Your task to perform on an android device: turn on the 12-hour format for clock Image 0: 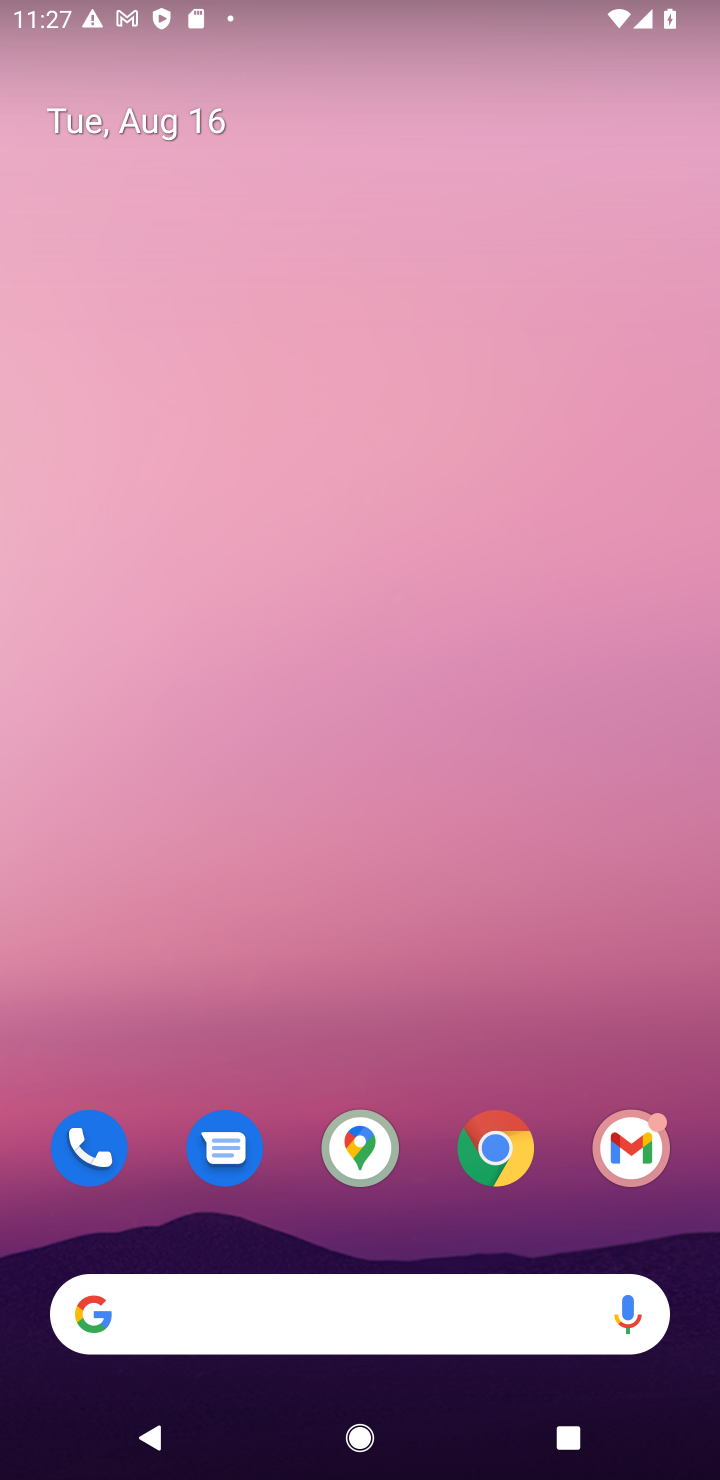
Step 0: drag from (436, 1077) to (73, 153)
Your task to perform on an android device: turn on the 12-hour format for clock Image 1: 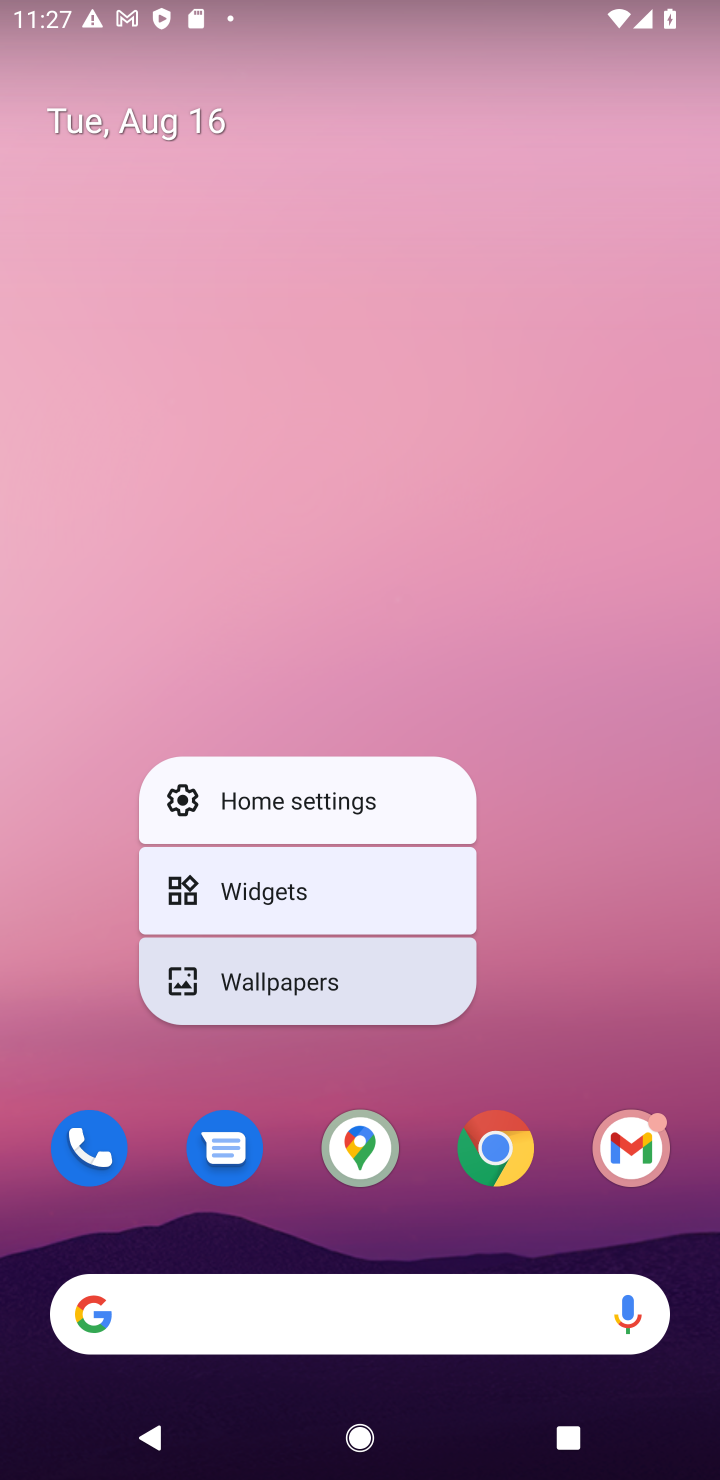
Step 1: click (134, 343)
Your task to perform on an android device: turn on the 12-hour format for clock Image 2: 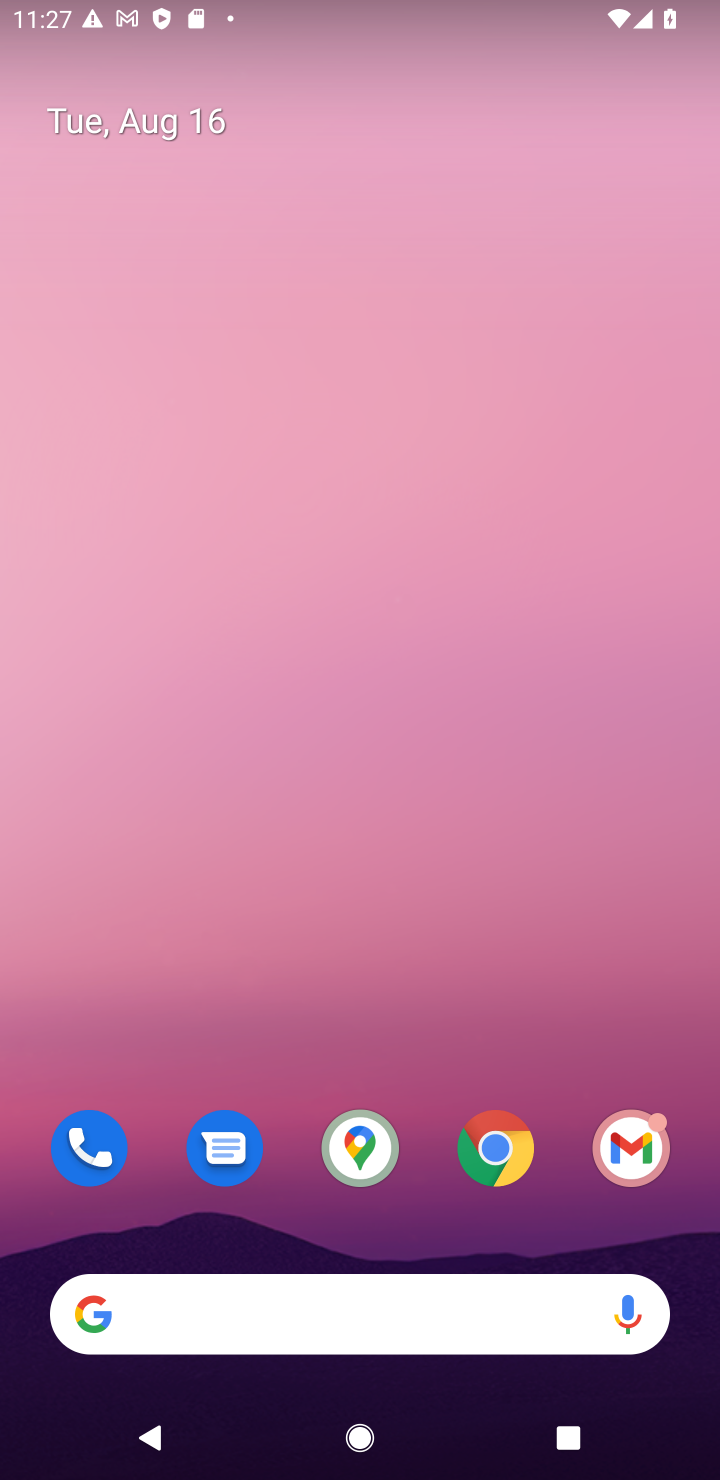
Step 2: drag from (362, 1244) to (0, 398)
Your task to perform on an android device: turn on the 12-hour format for clock Image 3: 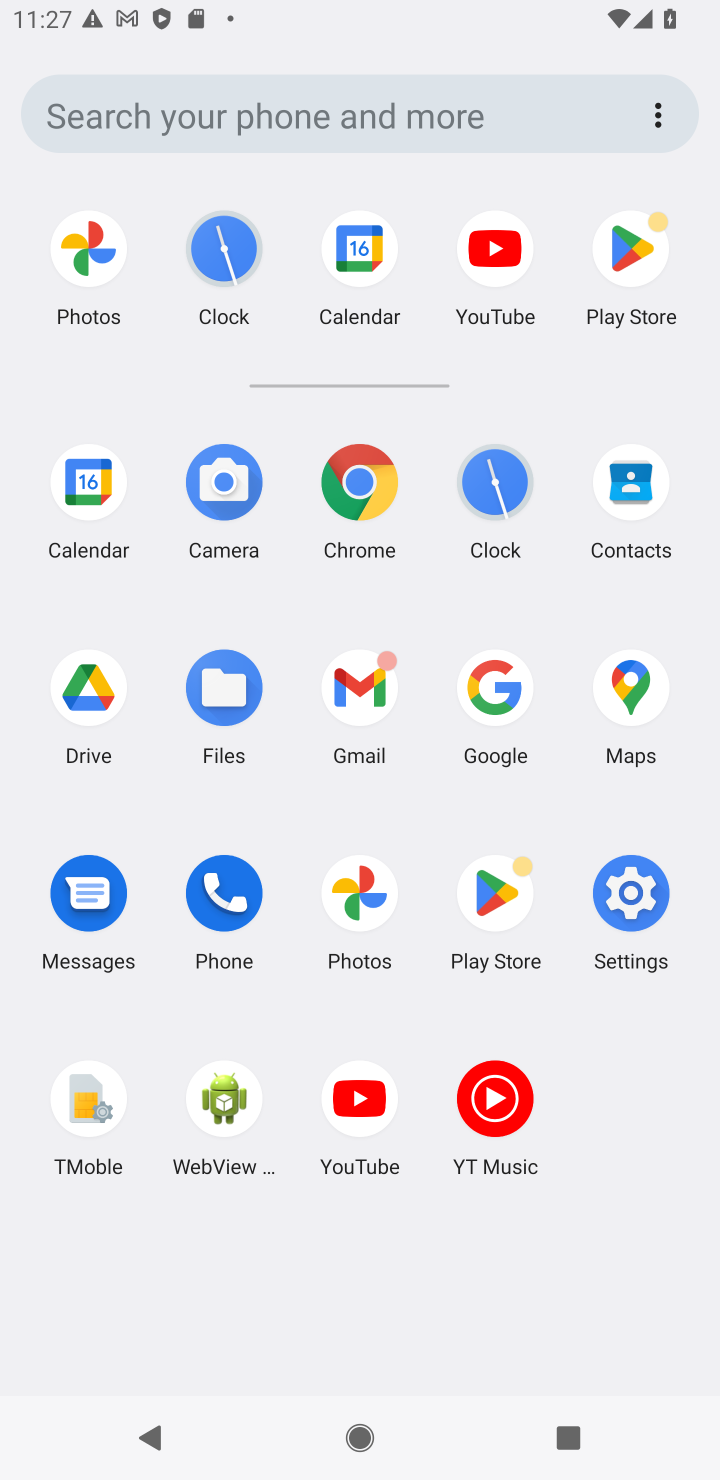
Step 3: click (490, 489)
Your task to perform on an android device: turn on the 12-hour format for clock Image 4: 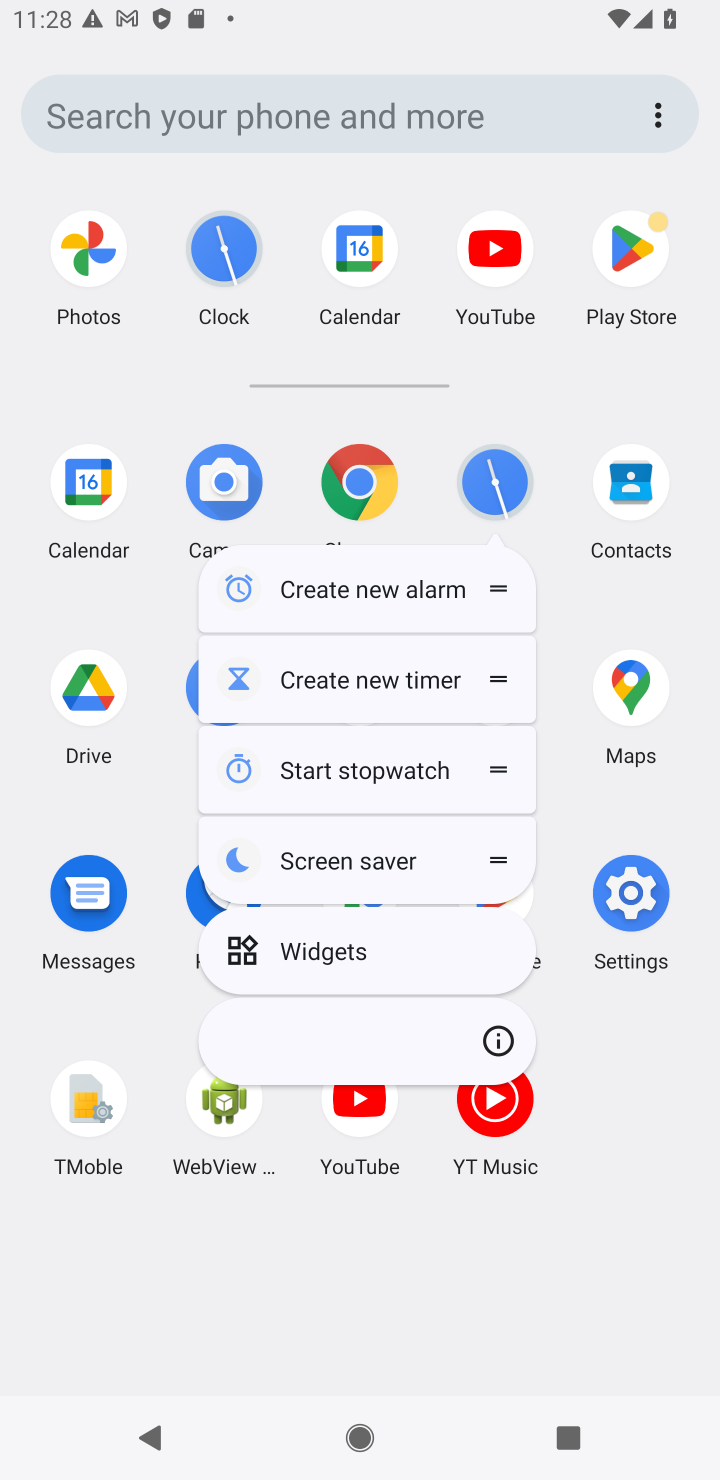
Step 4: click (478, 490)
Your task to perform on an android device: turn on the 12-hour format for clock Image 5: 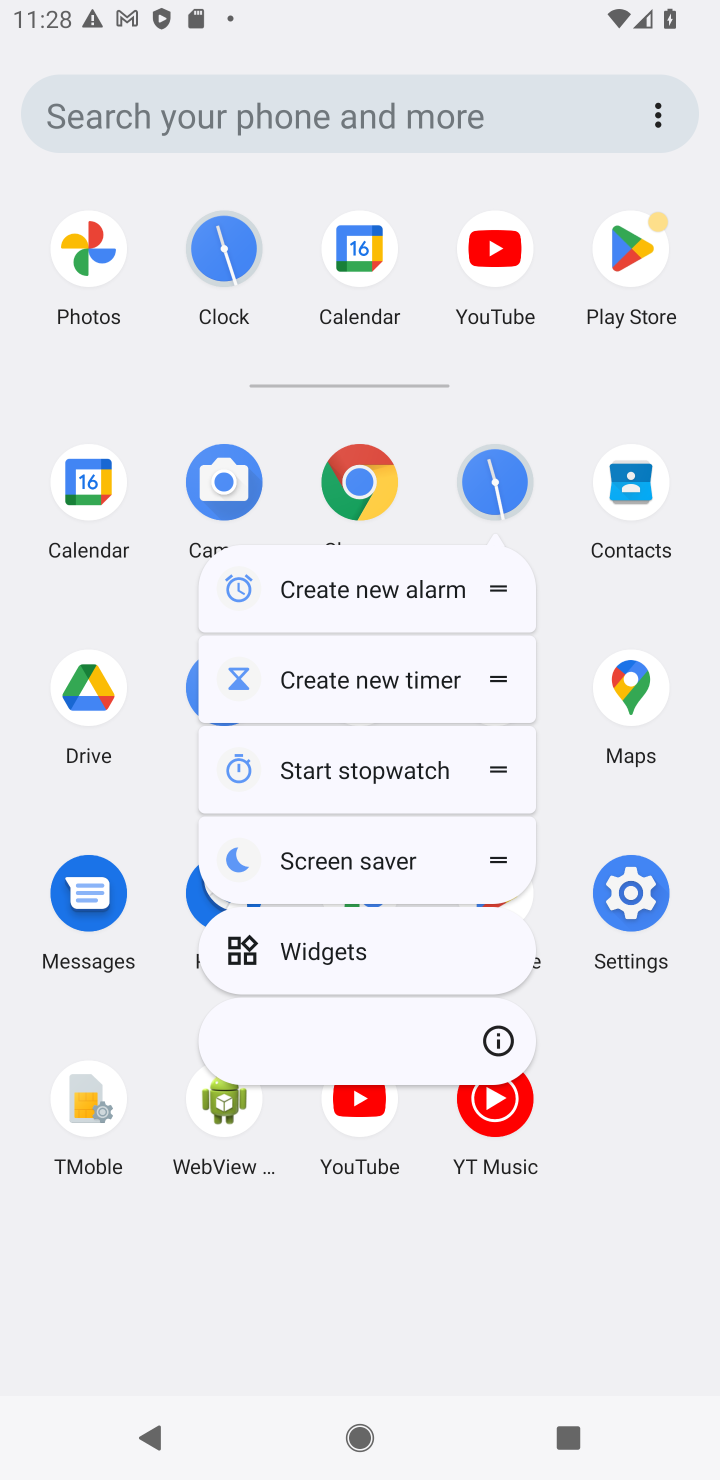
Step 5: click (464, 1266)
Your task to perform on an android device: turn on the 12-hour format for clock Image 6: 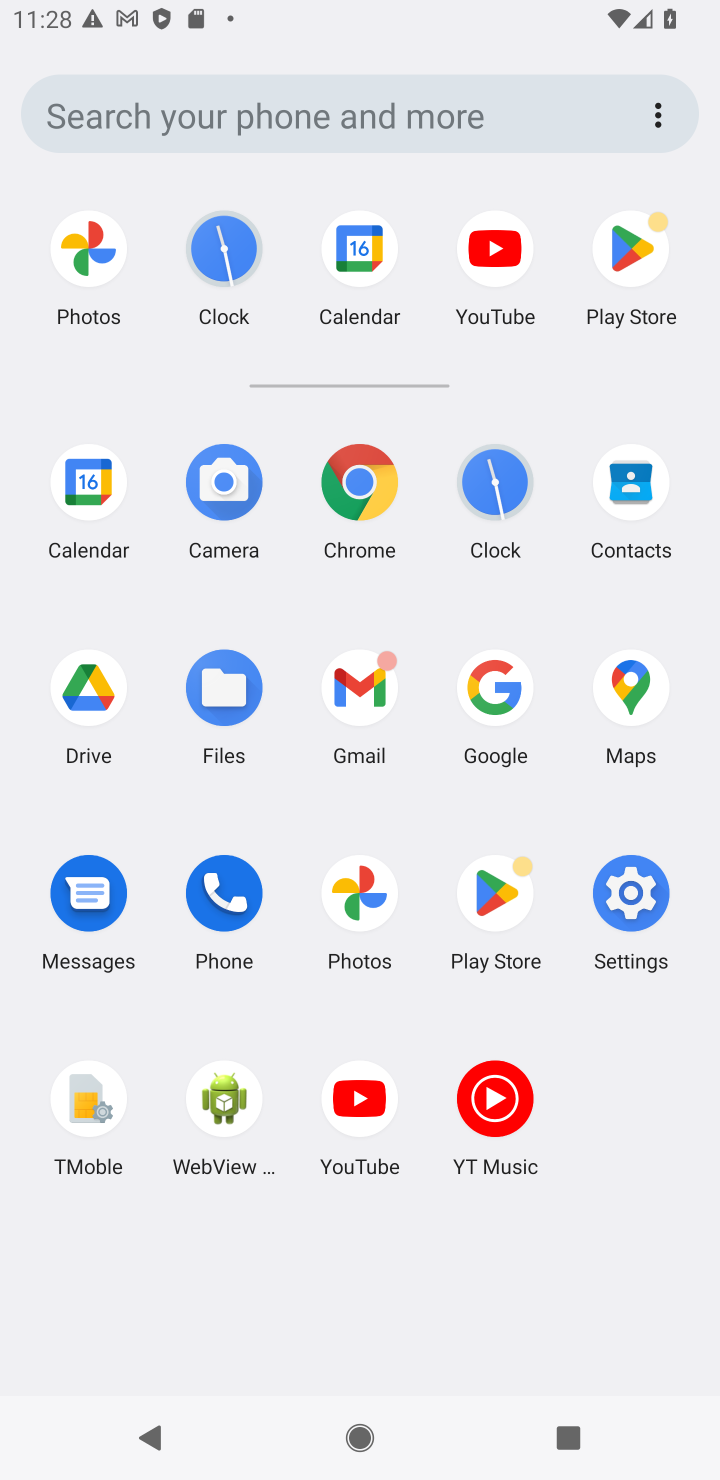
Step 6: click (470, 469)
Your task to perform on an android device: turn on the 12-hour format for clock Image 7: 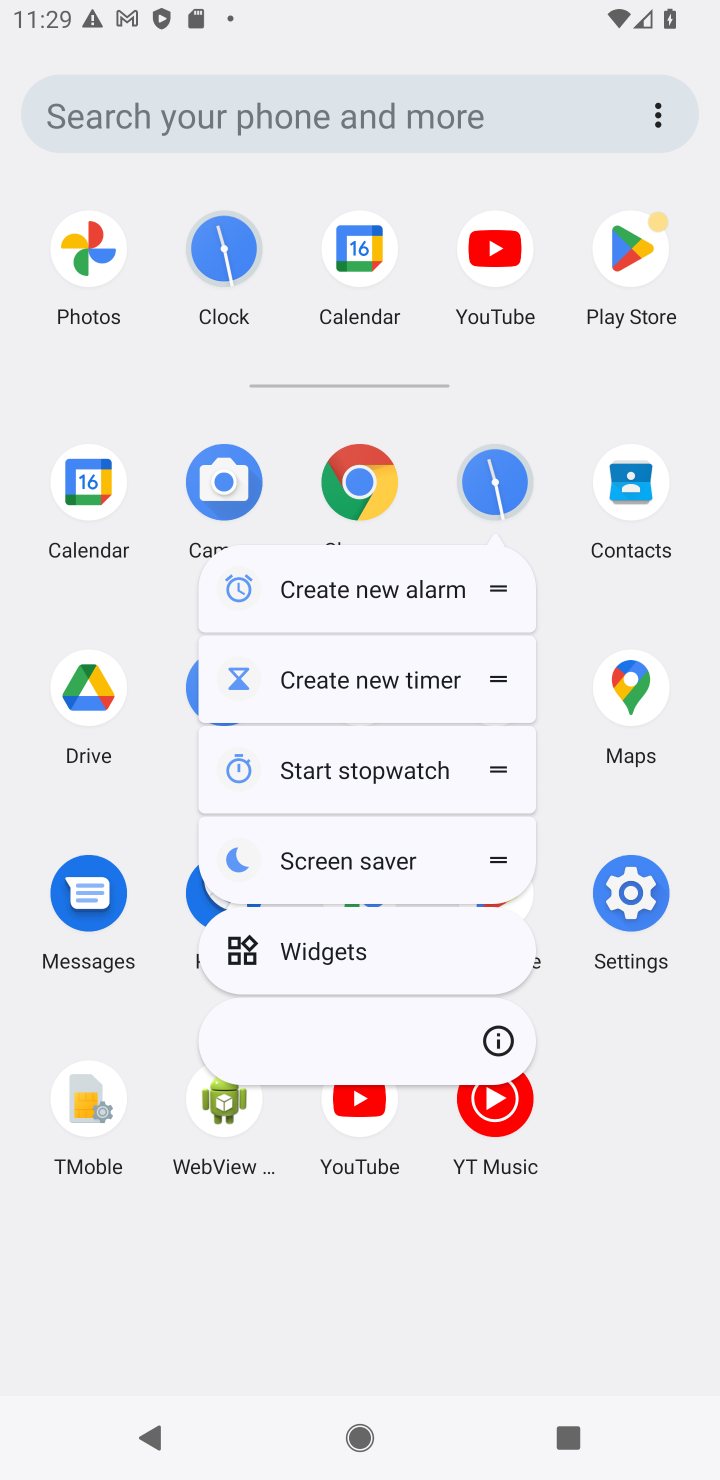
Step 7: click (528, 1358)
Your task to perform on an android device: turn on the 12-hour format for clock Image 8: 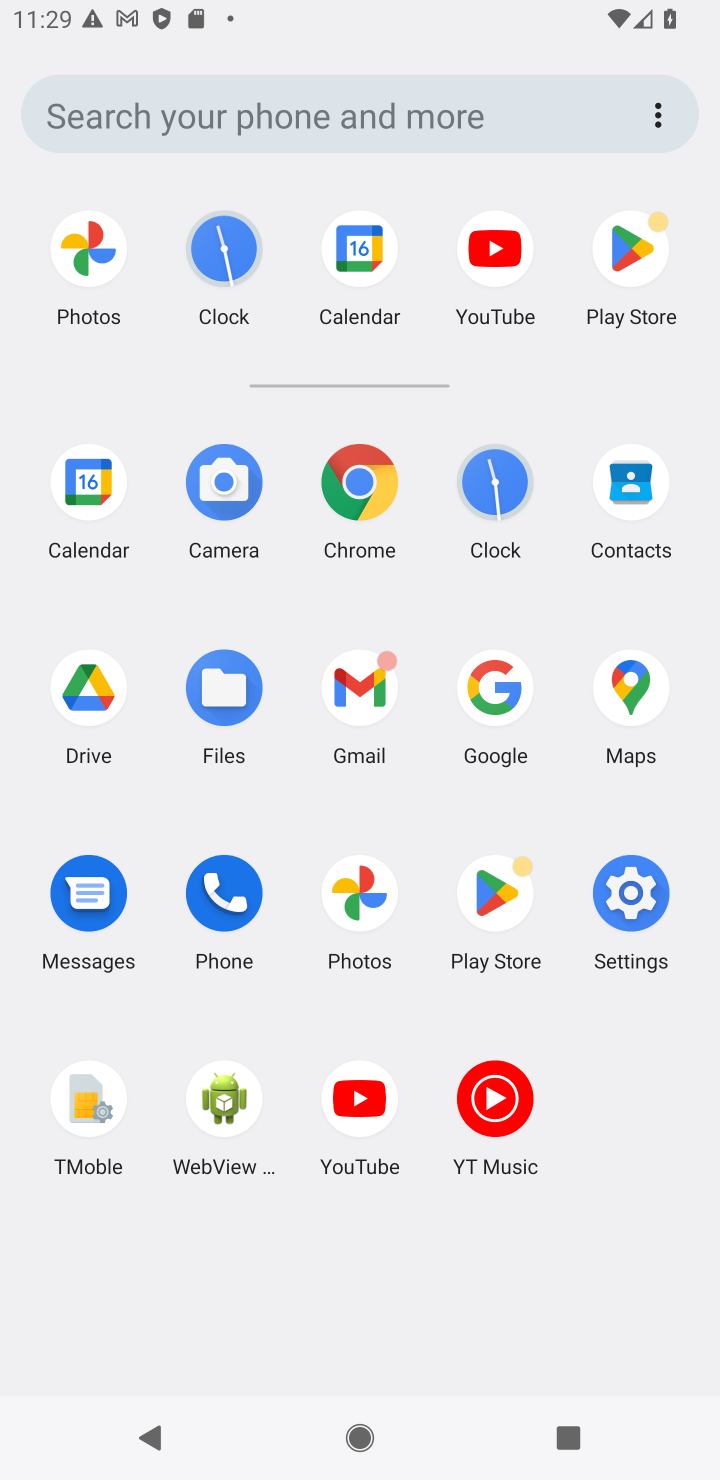
Step 8: click (498, 483)
Your task to perform on an android device: turn on the 12-hour format for clock Image 9: 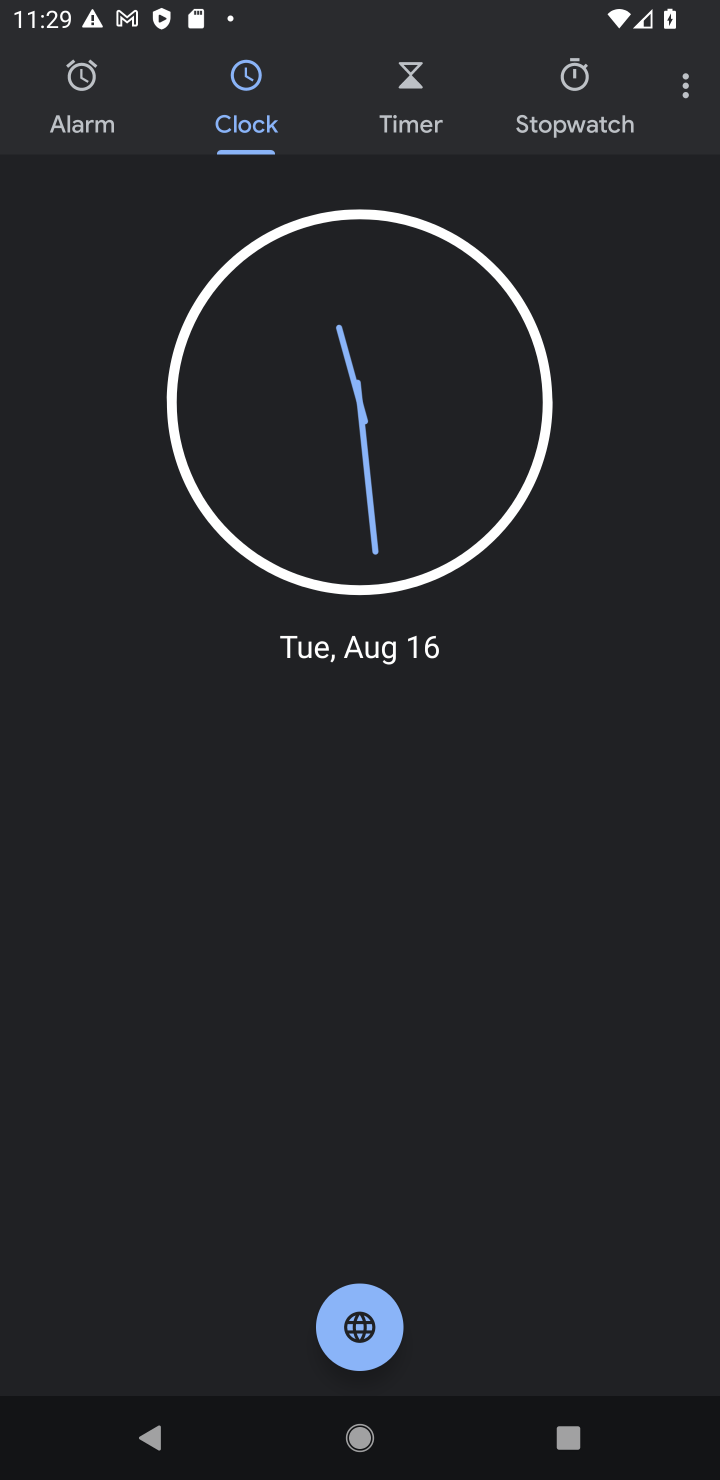
Step 9: click (683, 102)
Your task to perform on an android device: turn on the 12-hour format for clock Image 10: 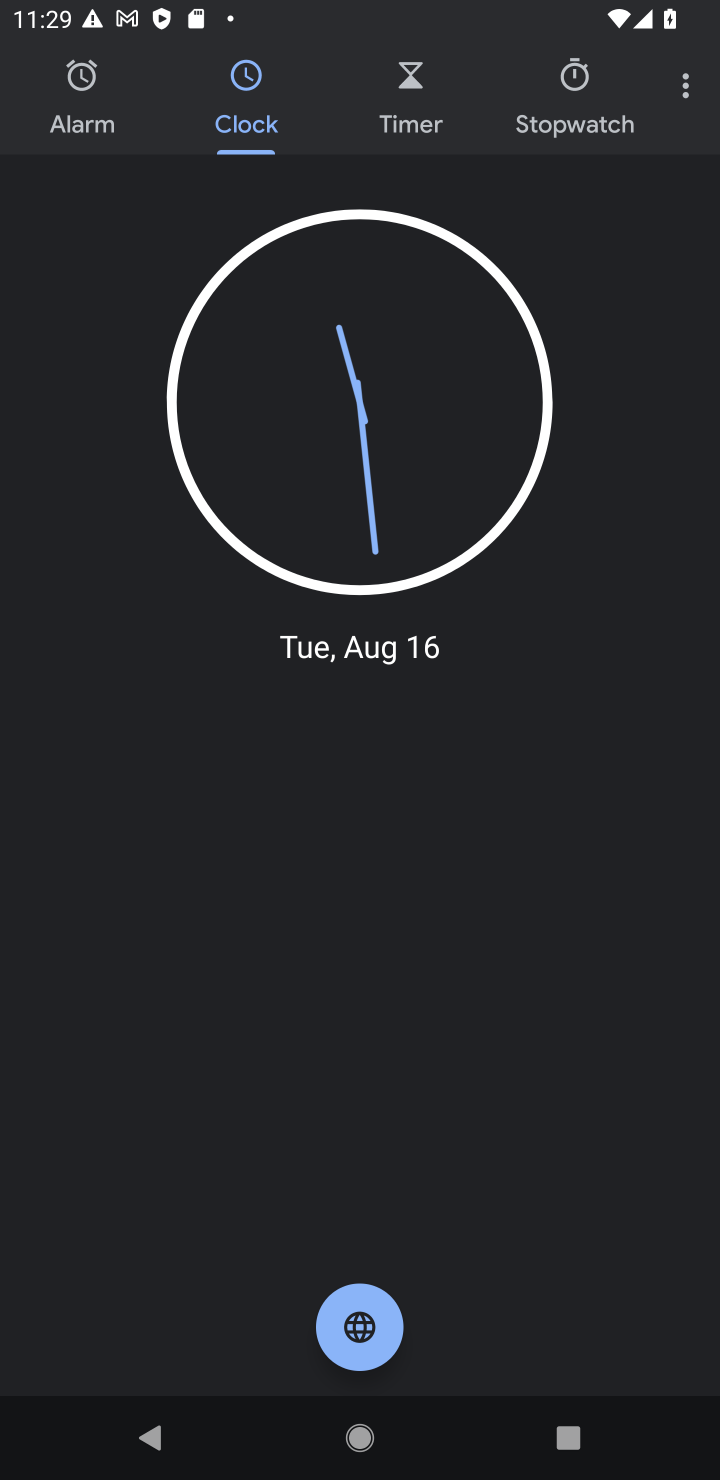
Step 10: click (679, 85)
Your task to perform on an android device: turn on the 12-hour format for clock Image 11: 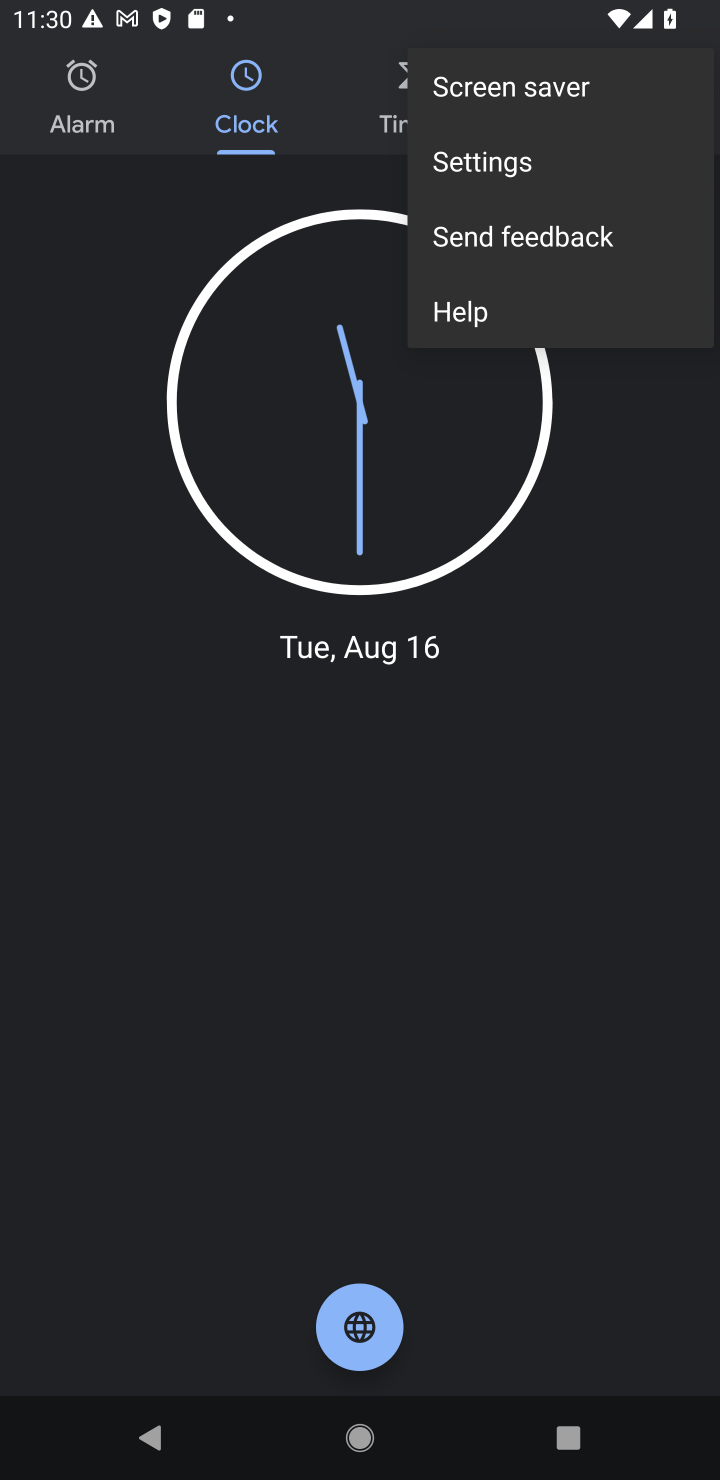
Step 11: click (438, 152)
Your task to perform on an android device: turn on the 12-hour format for clock Image 12: 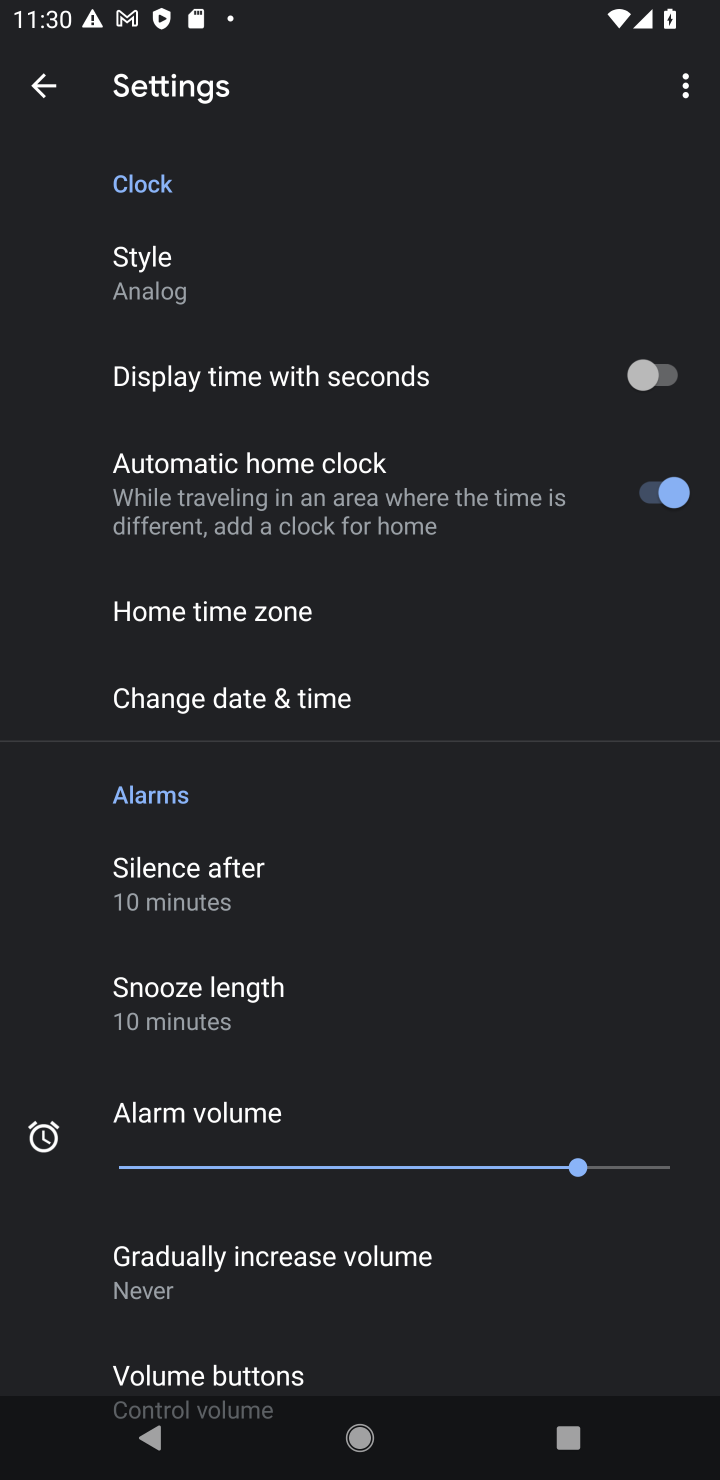
Step 12: click (235, 670)
Your task to perform on an android device: turn on the 12-hour format for clock Image 13: 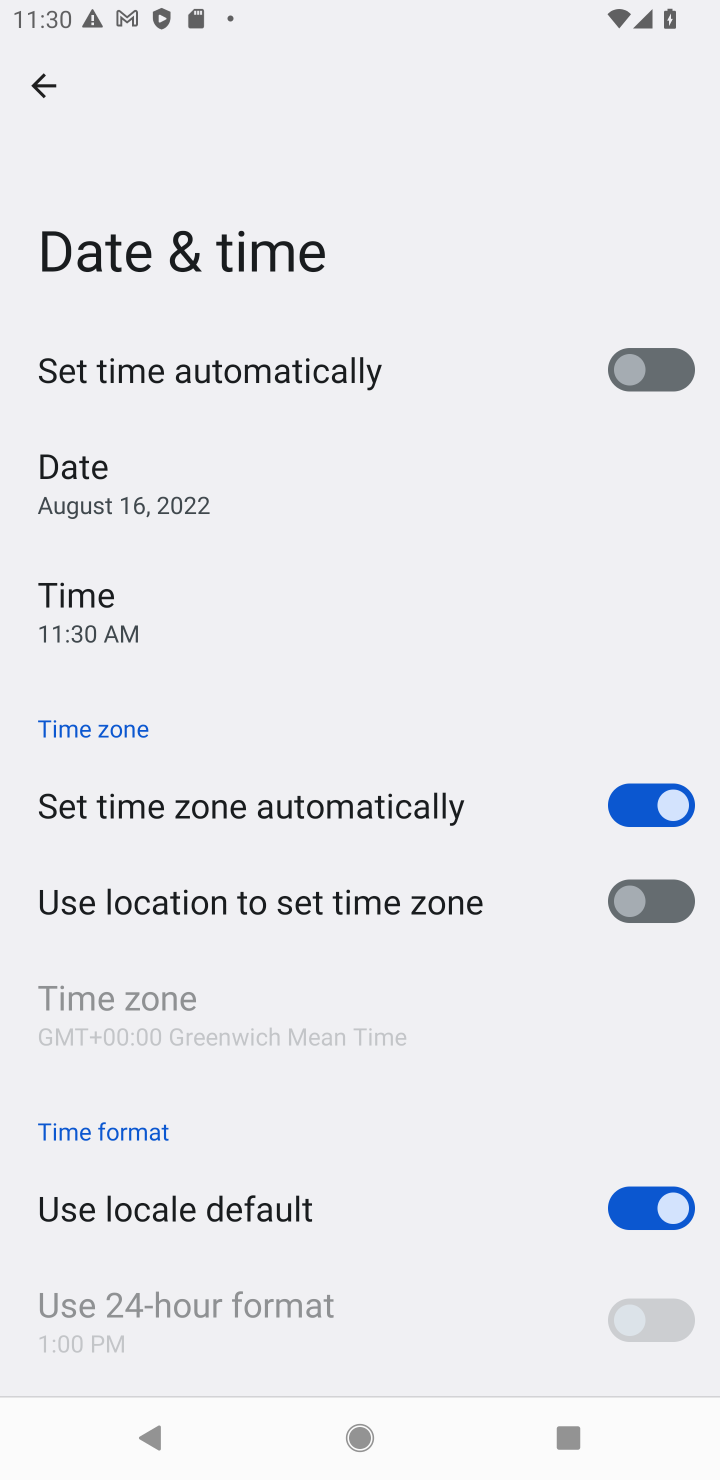
Step 13: task complete